Your task to perform on an android device: turn pop-ups on in chrome Image 0: 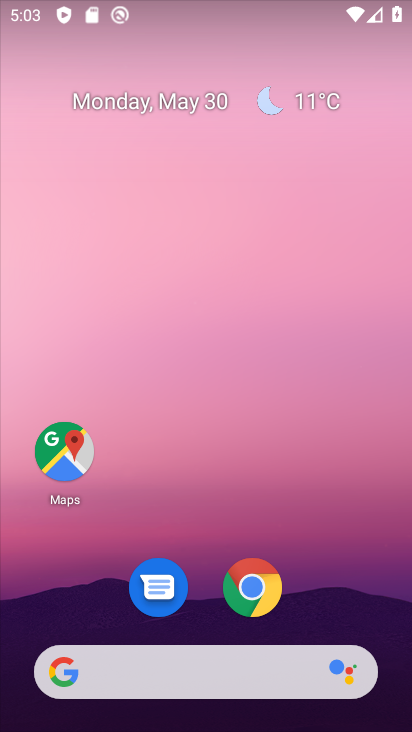
Step 0: drag from (230, 234) to (197, 6)
Your task to perform on an android device: turn pop-ups on in chrome Image 1: 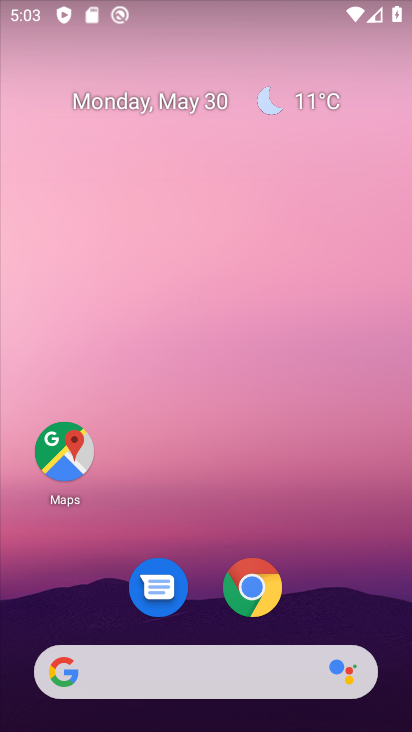
Step 1: drag from (347, 588) to (247, 16)
Your task to perform on an android device: turn pop-ups on in chrome Image 2: 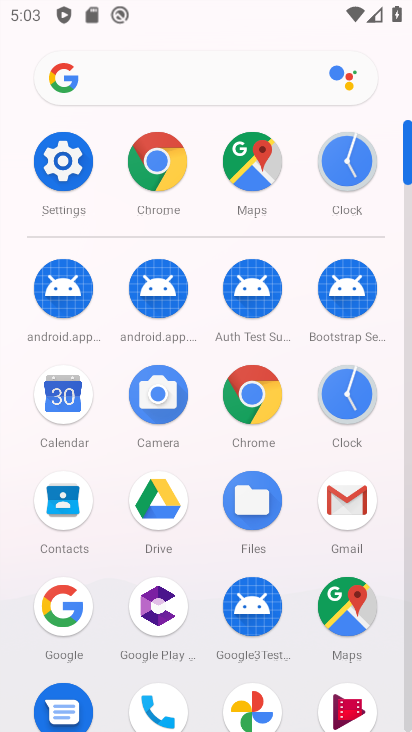
Step 2: click (151, 161)
Your task to perform on an android device: turn pop-ups on in chrome Image 3: 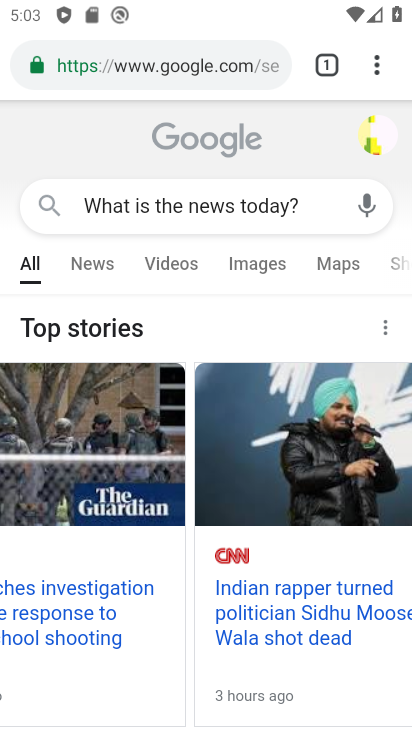
Step 3: drag from (378, 68) to (145, 636)
Your task to perform on an android device: turn pop-ups on in chrome Image 4: 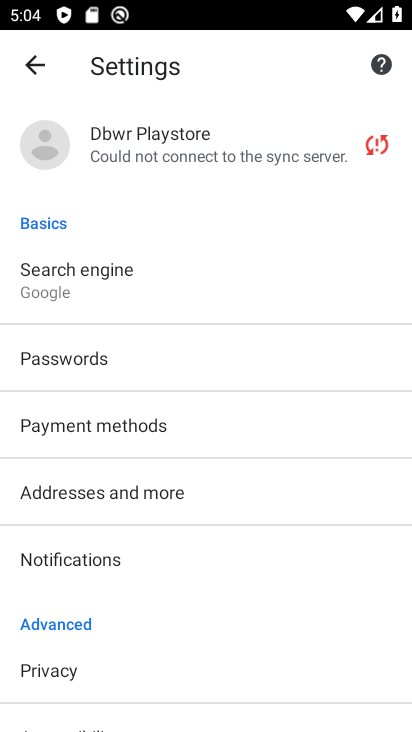
Step 4: drag from (246, 594) to (246, 272)
Your task to perform on an android device: turn pop-ups on in chrome Image 5: 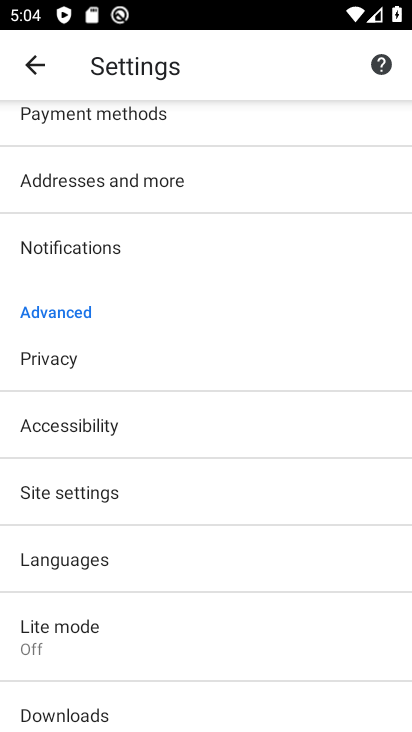
Step 5: click (122, 492)
Your task to perform on an android device: turn pop-ups on in chrome Image 6: 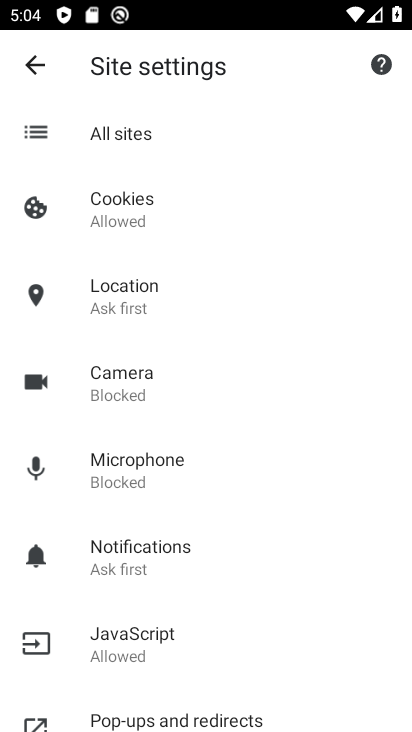
Step 6: drag from (202, 643) to (240, 313)
Your task to perform on an android device: turn pop-ups on in chrome Image 7: 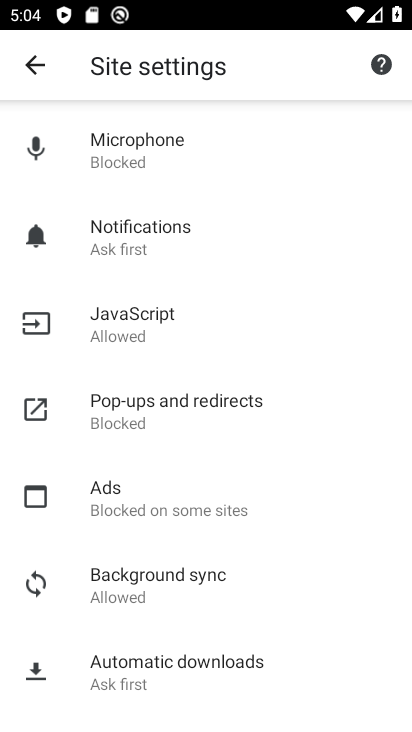
Step 7: click (160, 619)
Your task to perform on an android device: turn pop-ups on in chrome Image 8: 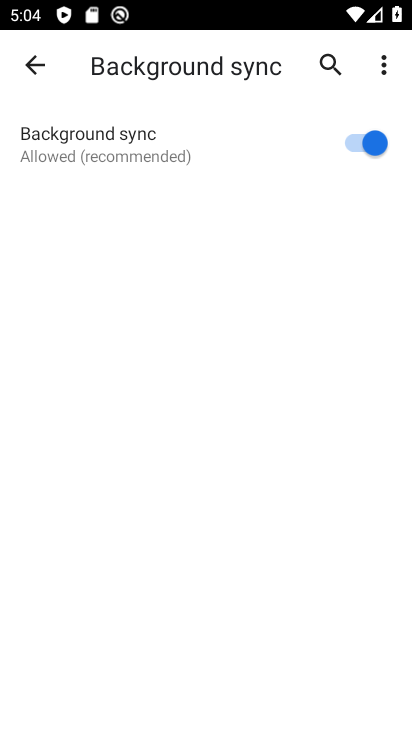
Step 8: click (36, 72)
Your task to perform on an android device: turn pop-ups on in chrome Image 9: 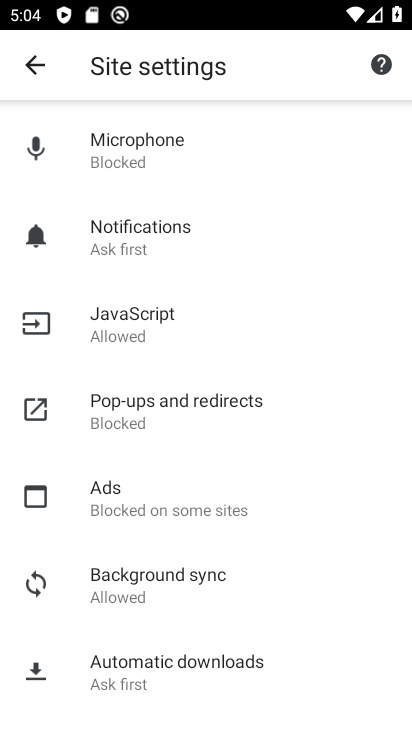
Step 9: click (147, 426)
Your task to perform on an android device: turn pop-ups on in chrome Image 10: 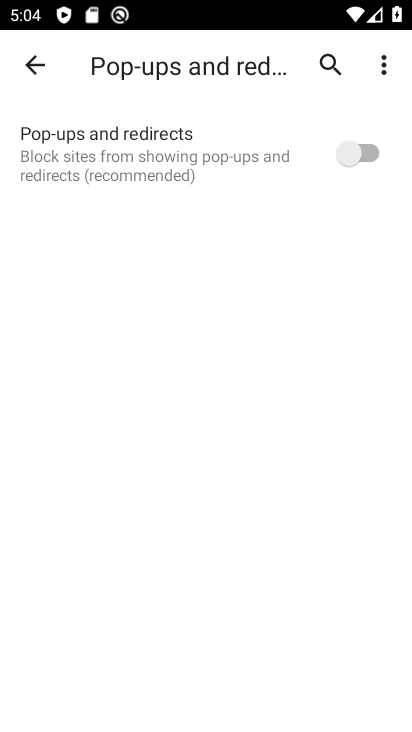
Step 10: click (350, 152)
Your task to perform on an android device: turn pop-ups on in chrome Image 11: 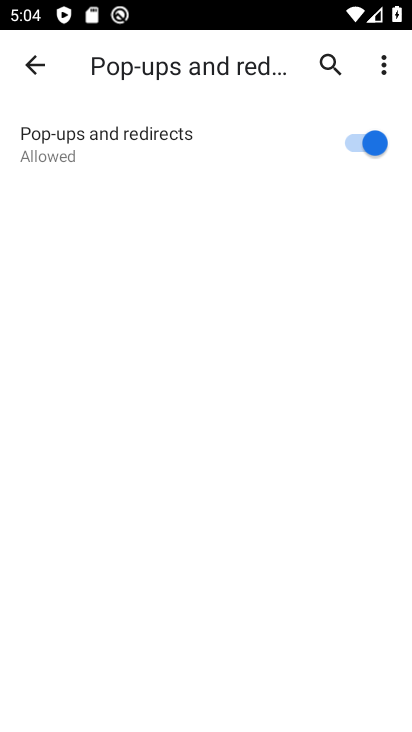
Step 11: task complete